Your task to perform on an android device: turn off wifi Image 0: 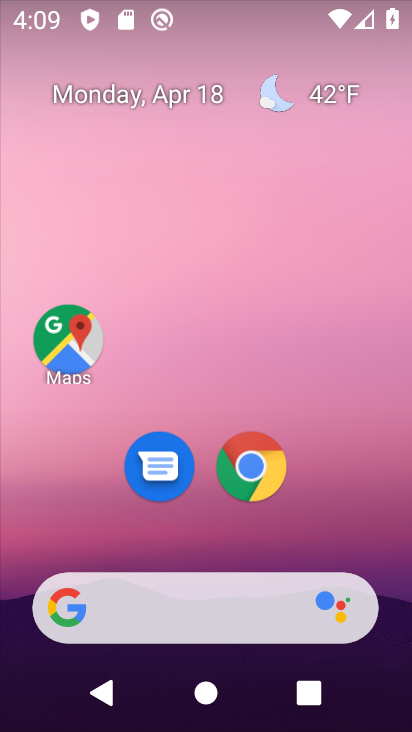
Step 0: drag from (383, 551) to (380, 256)
Your task to perform on an android device: turn off wifi Image 1: 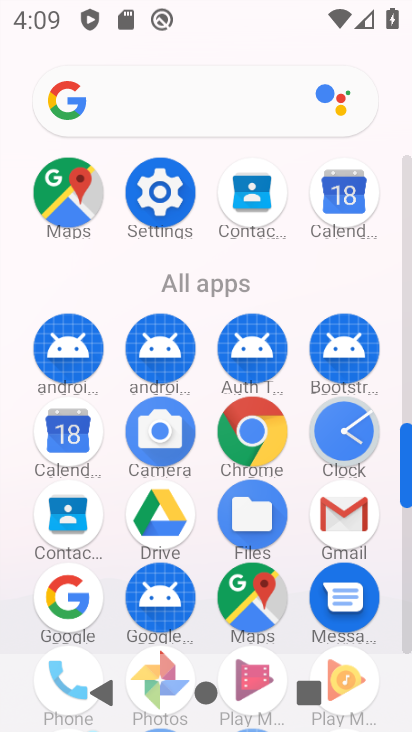
Step 1: click (407, 641)
Your task to perform on an android device: turn off wifi Image 2: 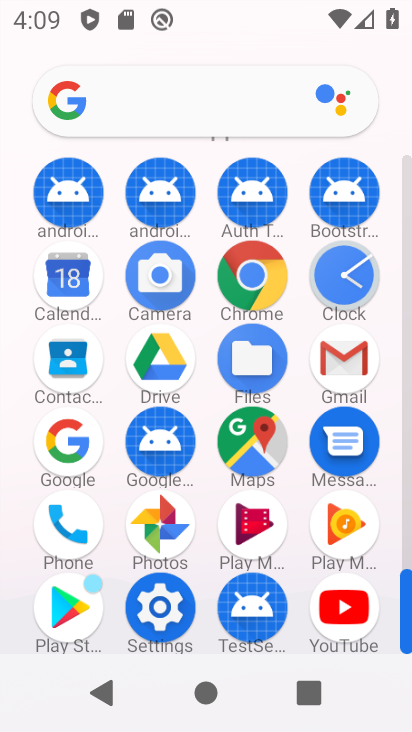
Step 2: click (158, 605)
Your task to perform on an android device: turn off wifi Image 3: 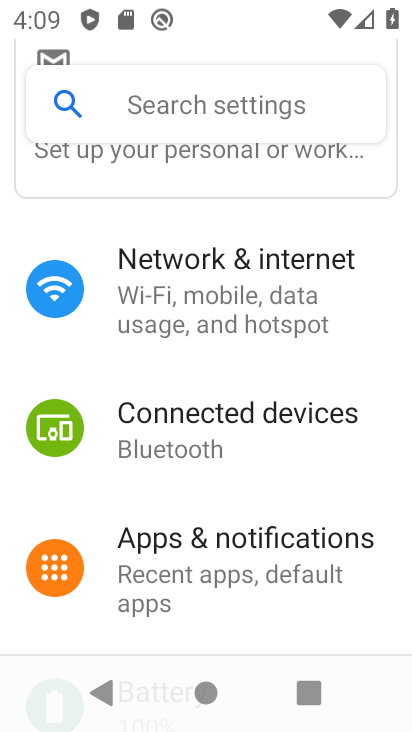
Step 3: click (176, 278)
Your task to perform on an android device: turn off wifi Image 4: 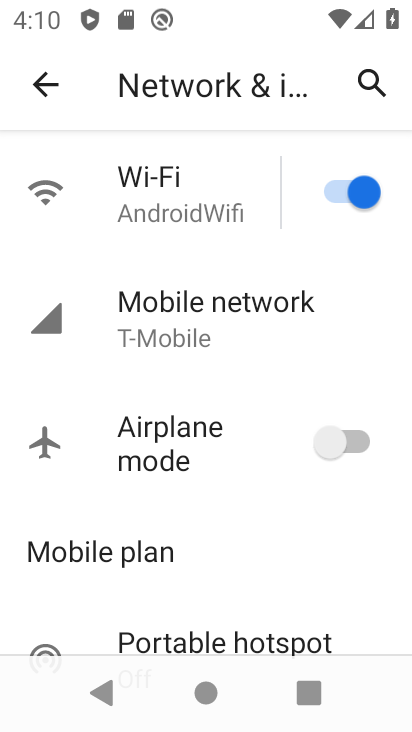
Step 4: click (326, 189)
Your task to perform on an android device: turn off wifi Image 5: 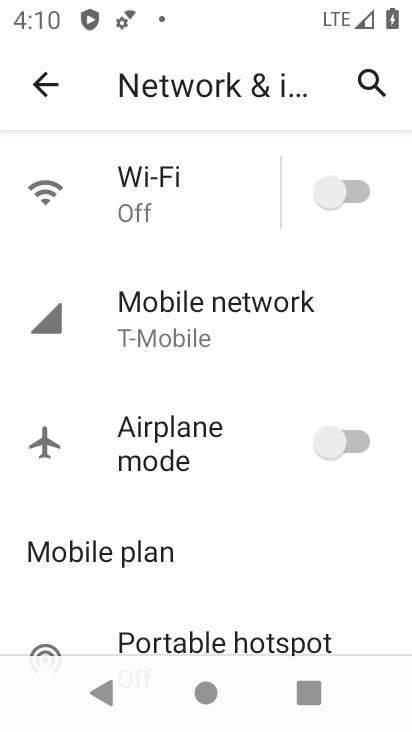
Step 5: task complete